Your task to perform on an android device: Go to Google maps Image 0: 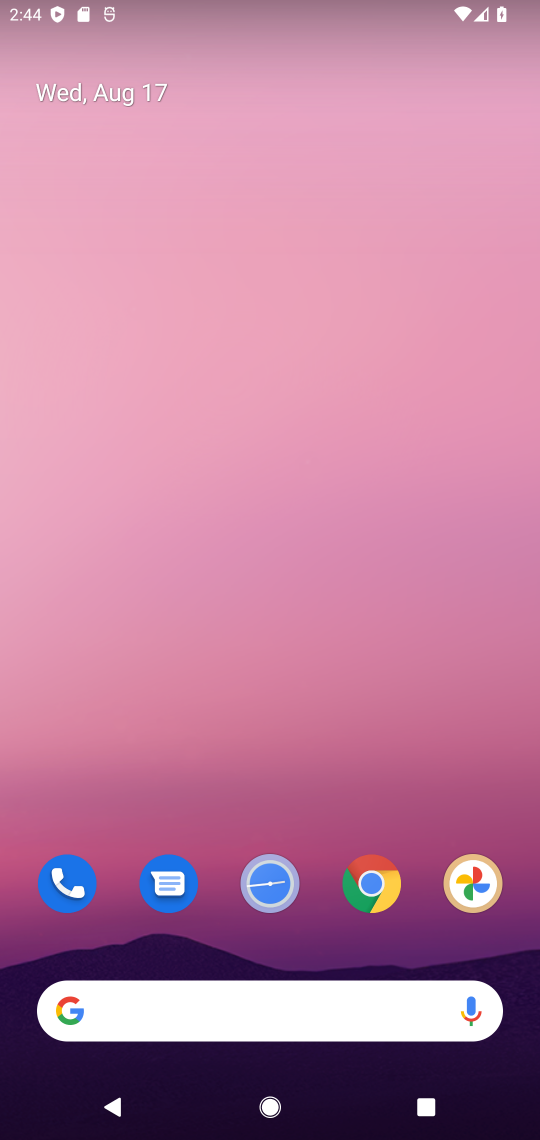
Step 0: drag from (351, 792) to (451, 236)
Your task to perform on an android device: Go to Google maps Image 1: 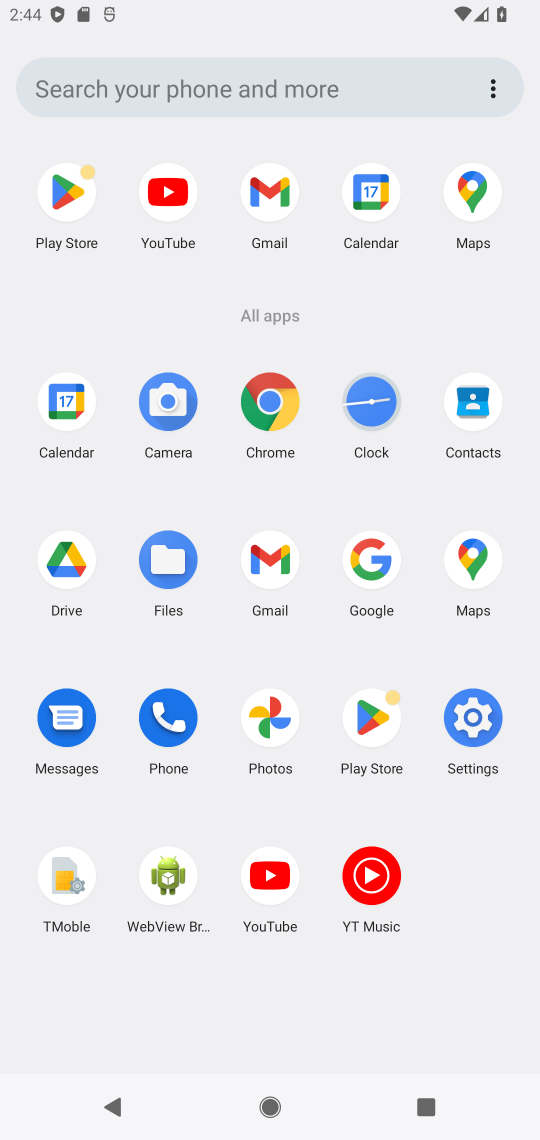
Step 1: click (482, 547)
Your task to perform on an android device: Go to Google maps Image 2: 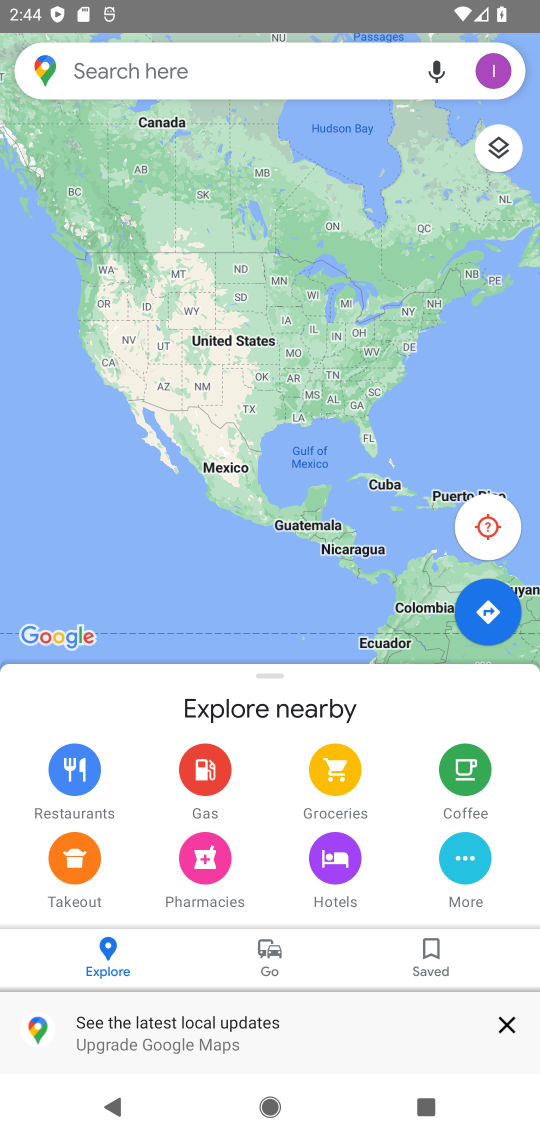
Step 2: task complete